Your task to perform on an android device: Do I have any events this weekend? Image 0: 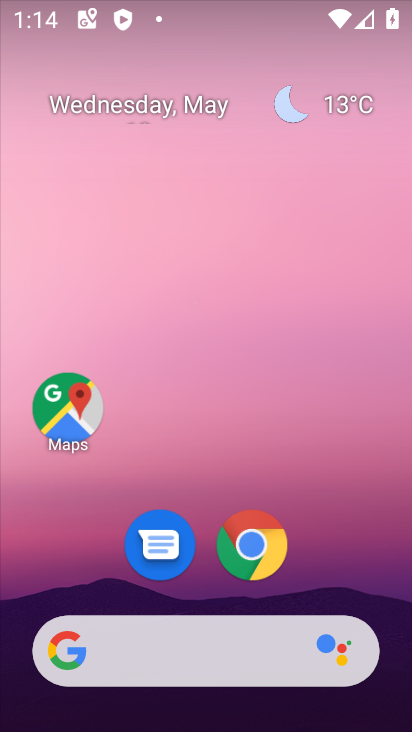
Step 0: drag from (347, 585) to (343, 155)
Your task to perform on an android device: Do I have any events this weekend? Image 1: 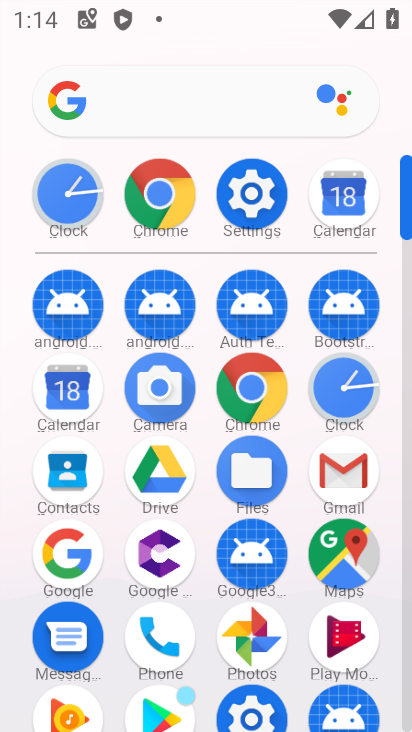
Step 1: click (68, 386)
Your task to perform on an android device: Do I have any events this weekend? Image 2: 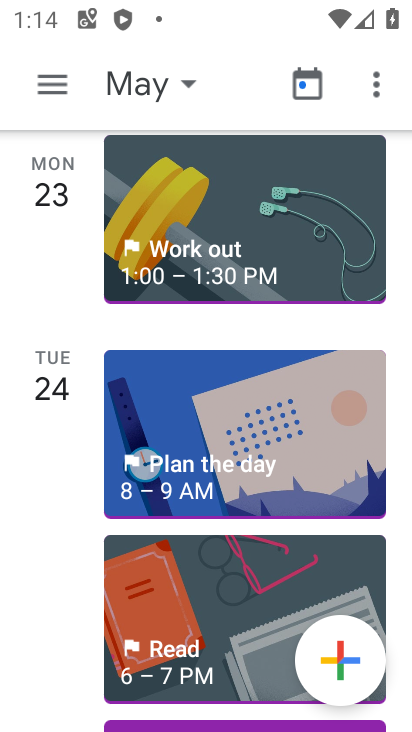
Step 2: click (62, 77)
Your task to perform on an android device: Do I have any events this weekend? Image 3: 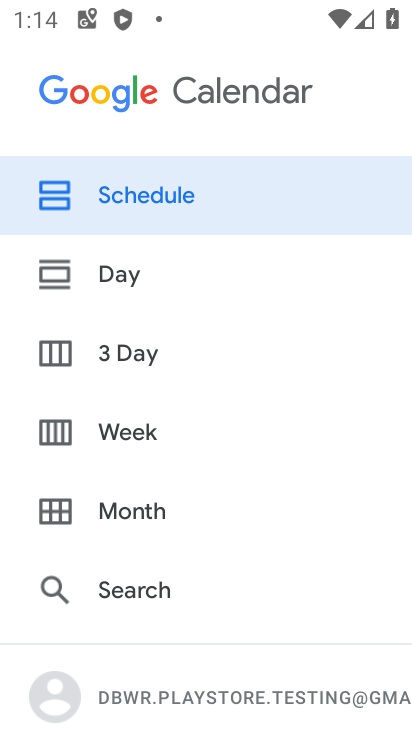
Step 3: click (173, 342)
Your task to perform on an android device: Do I have any events this weekend? Image 4: 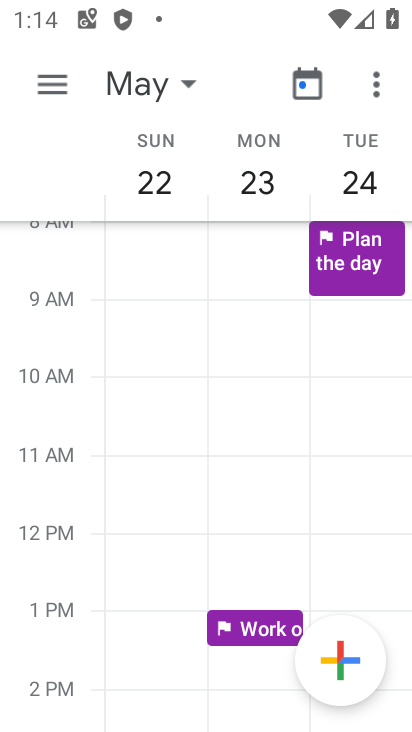
Step 4: click (160, 72)
Your task to perform on an android device: Do I have any events this weekend? Image 5: 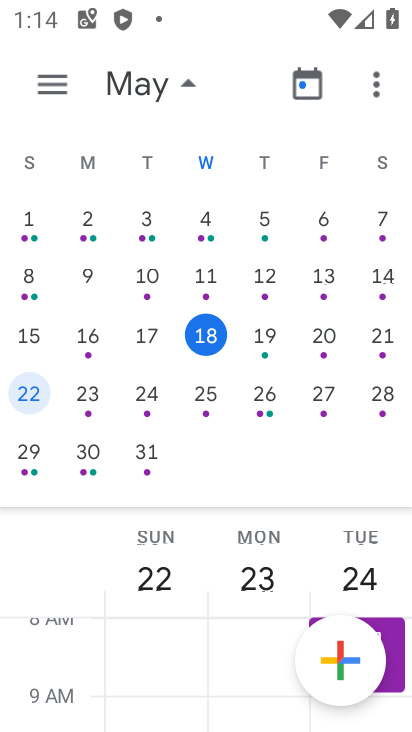
Step 5: click (326, 324)
Your task to perform on an android device: Do I have any events this weekend? Image 6: 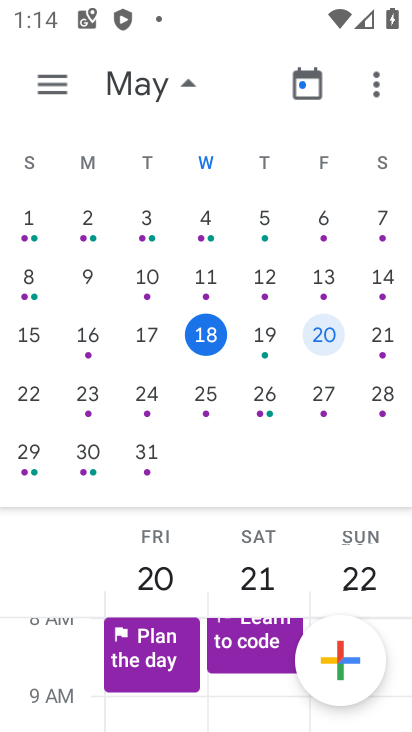
Step 6: task complete